Your task to perform on an android device: visit the assistant section in the google photos Image 0: 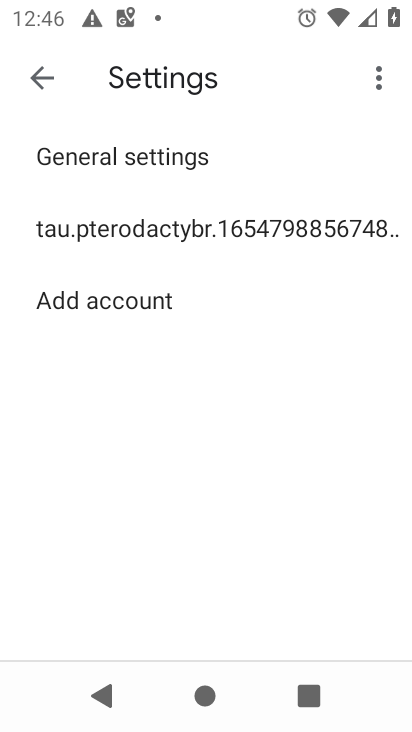
Step 0: press back button
Your task to perform on an android device: visit the assistant section in the google photos Image 1: 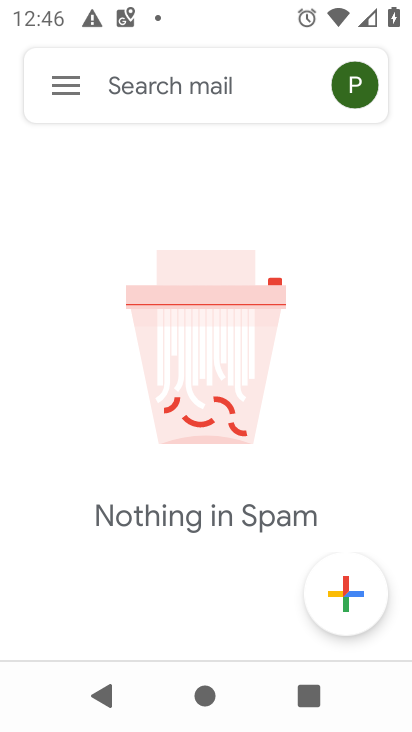
Step 1: press back button
Your task to perform on an android device: visit the assistant section in the google photos Image 2: 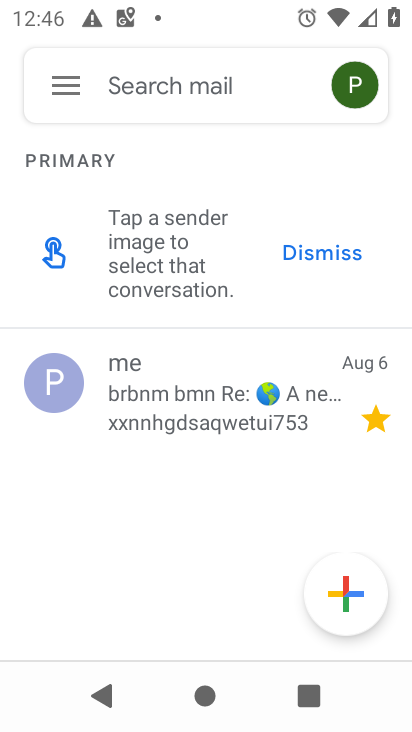
Step 2: press back button
Your task to perform on an android device: visit the assistant section in the google photos Image 3: 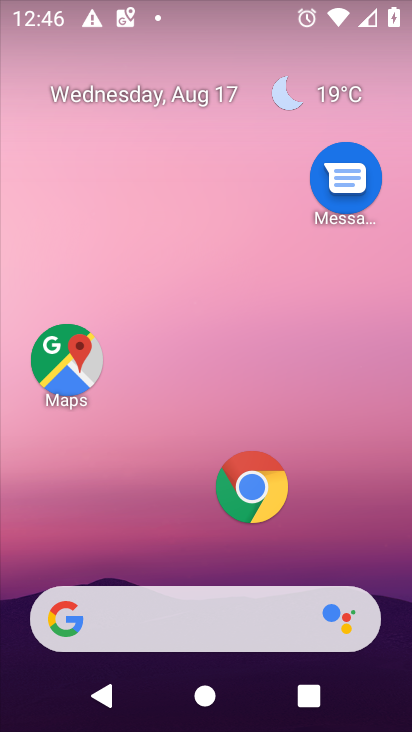
Step 3: drag from (238, 562) to (256, 7)
Your task to perform on an android device: visit the assistant section in the google photos Image 4: 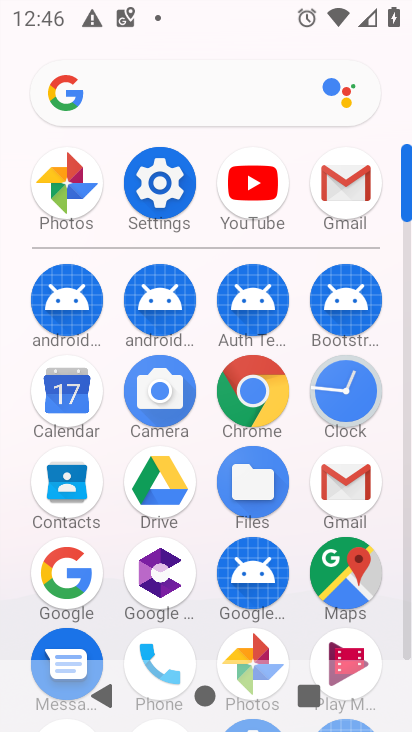
Step 4: click (256, 640)
Your task to perform on an android device: visit the assistant section in the google photos Image 5: 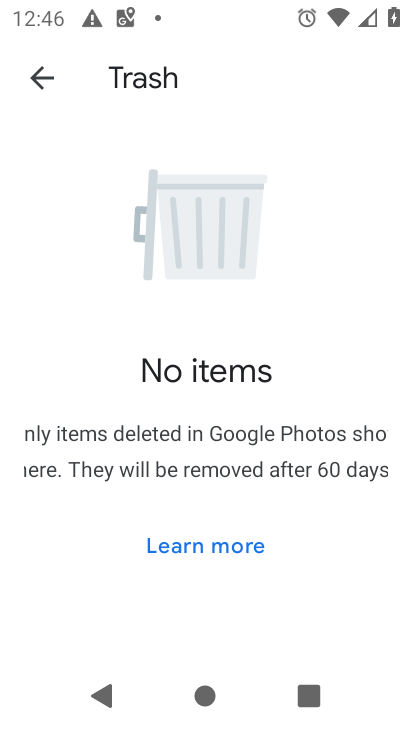
Step 5: click (27, 77)
Your task to perform on an android device: visit the assistant section in the google photos Image 6: 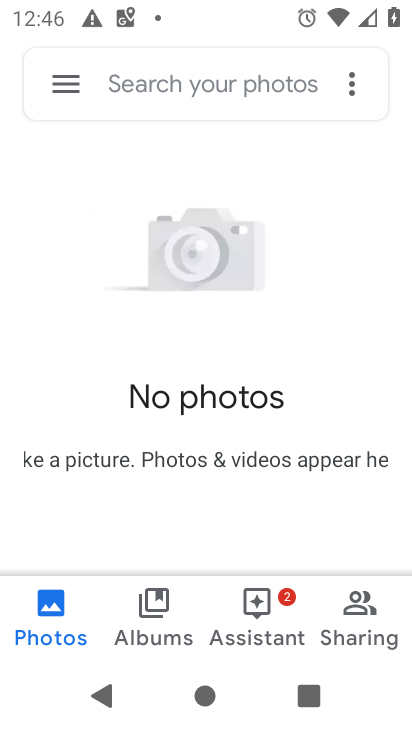
Step 6: click (255, 610)
Your task to perform on an android device: visit the assistant section in the google photos Image 7: 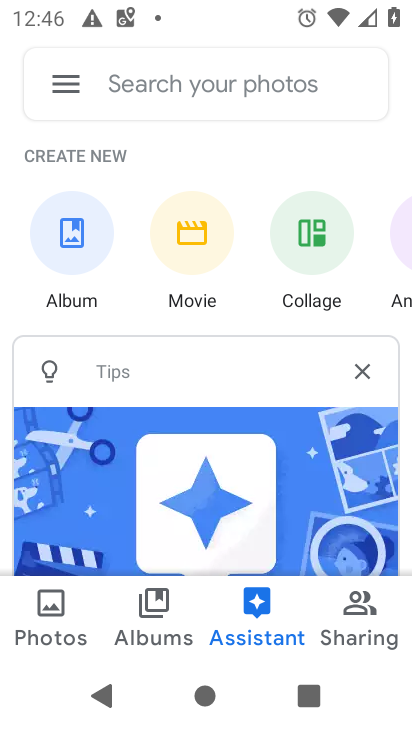
Step 7: task complete